Your task to perform on an android device: Open my contact list Image 0: 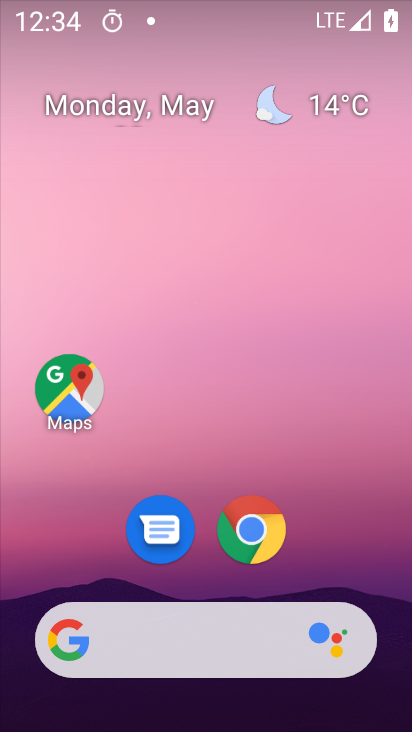
Step 0: drag from (385, 512) to (374, 183)
Your task to perform on an android device: Open my contact list Image 1: 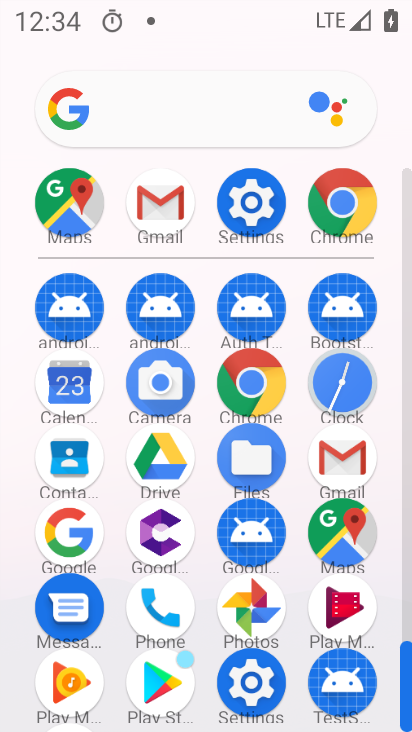
Step 1: drag from (201, 628) to (203, 484)
Your task to perform on an android device: Open my contact list Image 2: 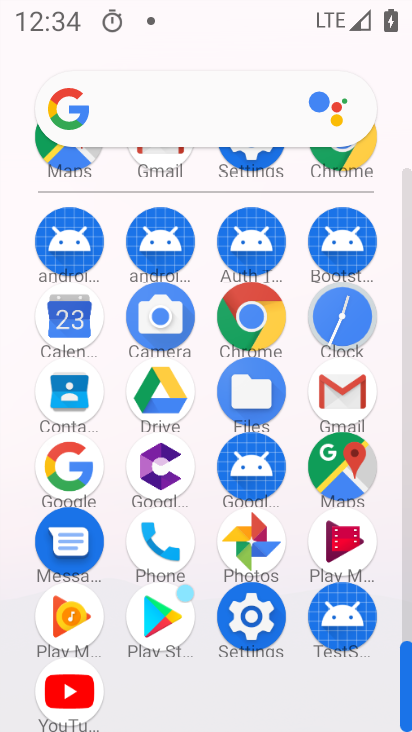
Step 2: click (63, 417)
Your task to perform on an android device: Open my contact list Image 3: 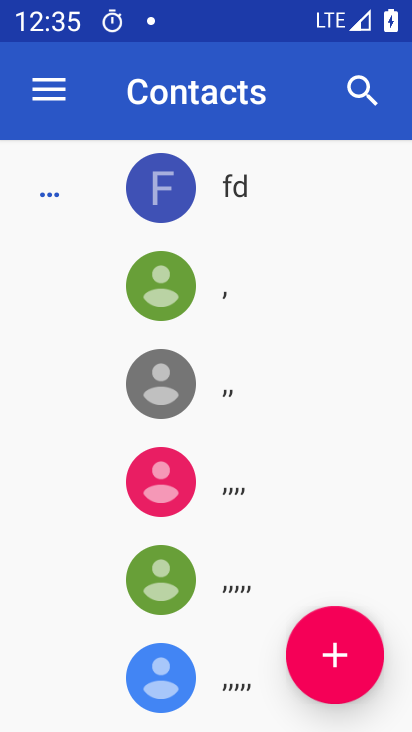
Step 3: task complete